Your task to perform on an android device: Go to battery settings Image 0: 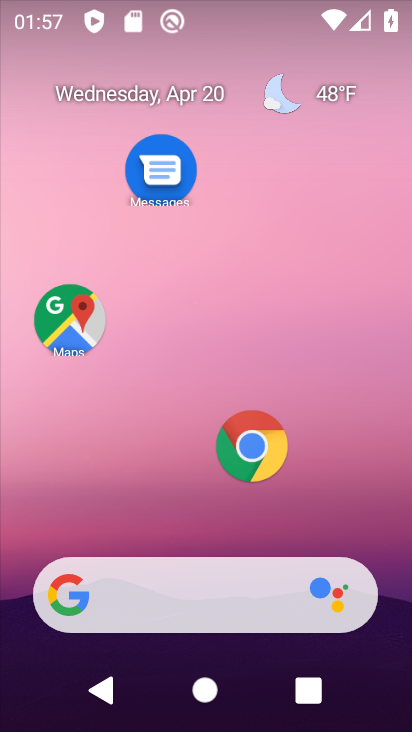
Step 0: drag from (213, 525) to (228, 160)
Your task to perform on an android device: Go to battery settings Image 1: 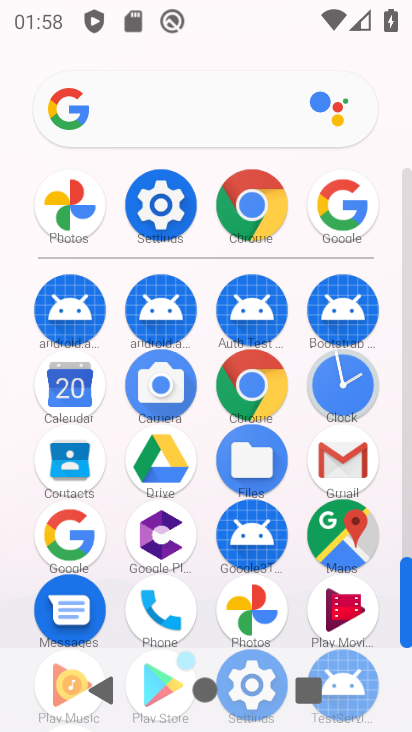
Step 1: click (158, 207)
Your task to perform on an android device: Go to battery settings Image 2: 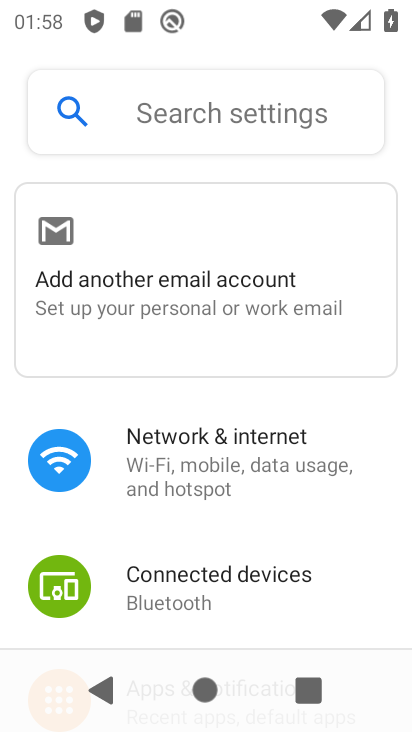
Step 2: drag from (232, 603) to (277, 113)
Your task to perform on an android device: Go to battery settings Image 3: 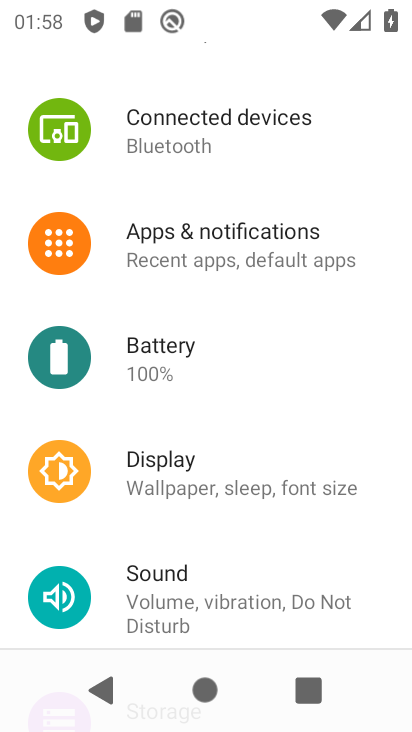
Step 3: click (191, 364)
Your task to perform on an android device: Go to battery settings Image 4: 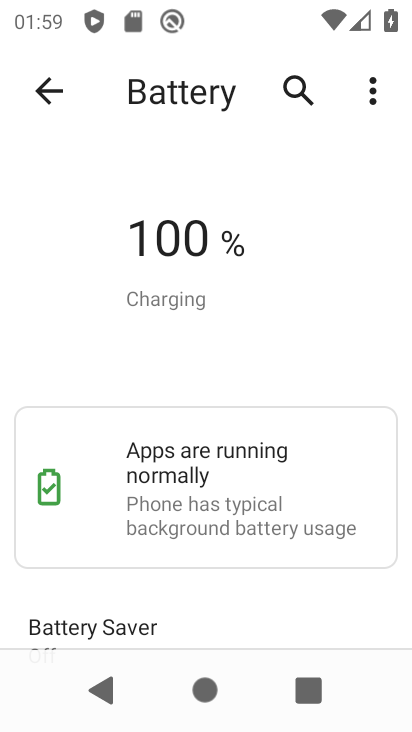
Step 4: task complete